Your task to perform on an android device: turn off wifi Image 0: 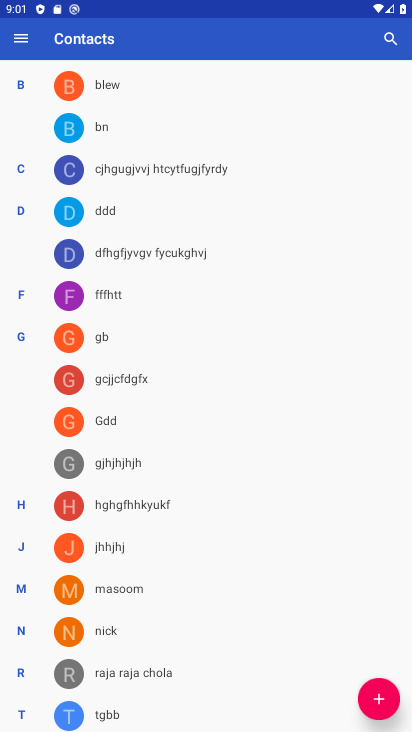
Step 0: press home button
Your task to perform on an android device: turn off wifi Image 1: 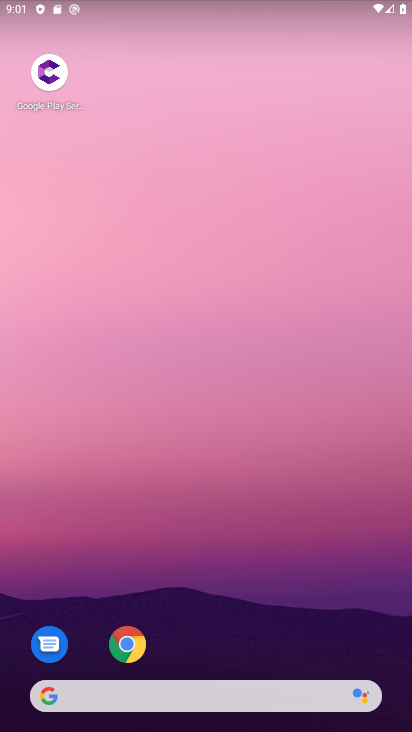
Step 1: drag from (335, 642) to (360, 203)
Your task to perform on an android device: turn off wifi Image 2: 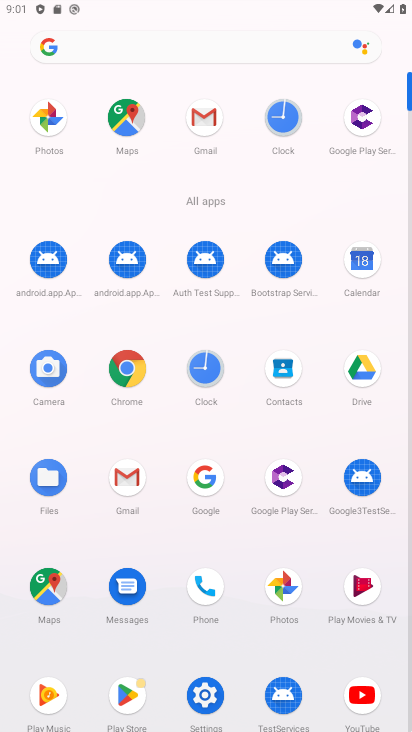
Step 2: click (203, 697)
Your task to perform on an android device: turn off wifi Image 3: 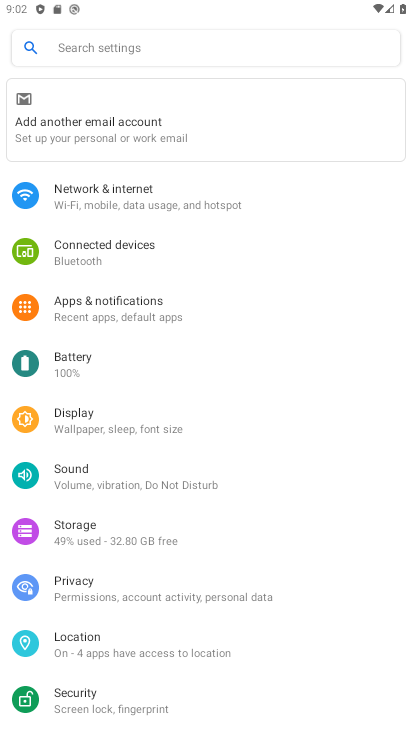
Step 3: drag from (328, 603) to (343, 507)
Your task to perform on an android device: turn off wifi Image 4: 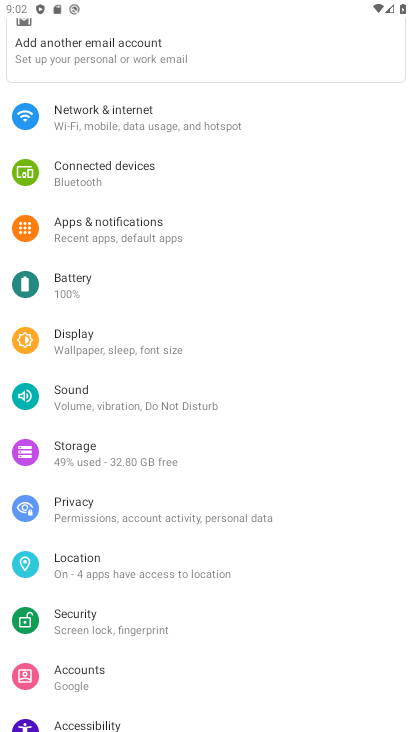
Step 4: drag from (346, 608) to (351, 532)
Your task to perform on an android device: turn off wifi Image 5: 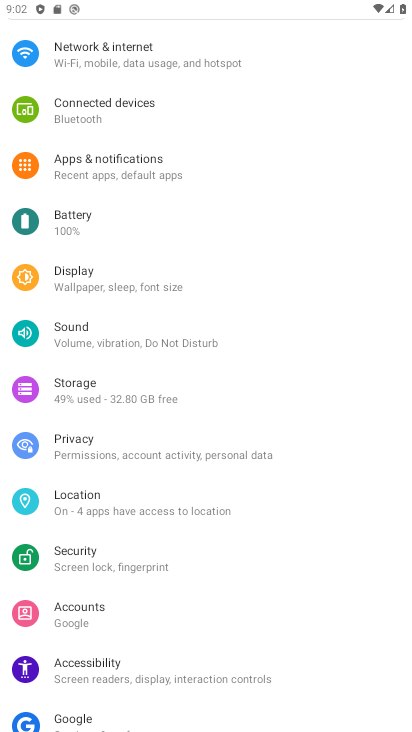
Step 5: drag from (331, 616) to (325, 506)
Your task to perform on an android device: turn off wifi Image 6: 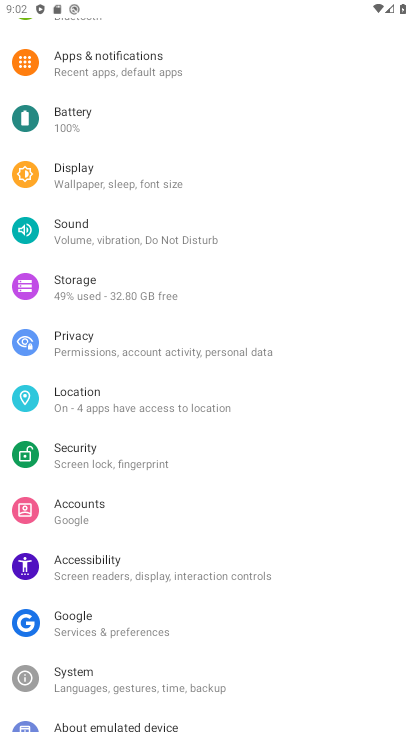
Step 6: drag from (339, 615) to (344, 510)
Your task to perform on an android device: turn off wifi Image 7: 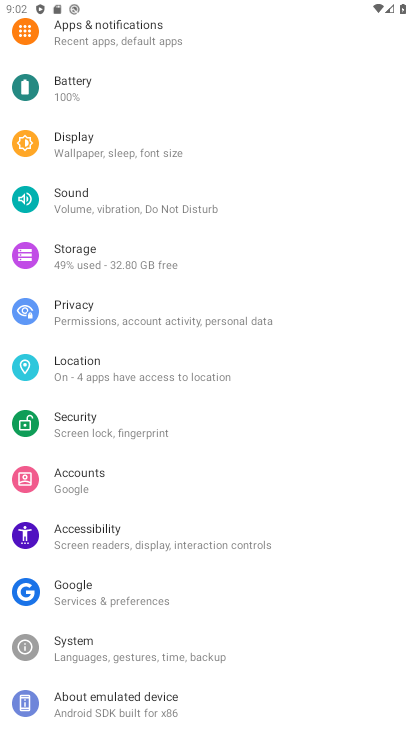
Step 7: drag from (357, 347) to (366, 536)
Your task to perform on an android device: turn off wifi Image 8: 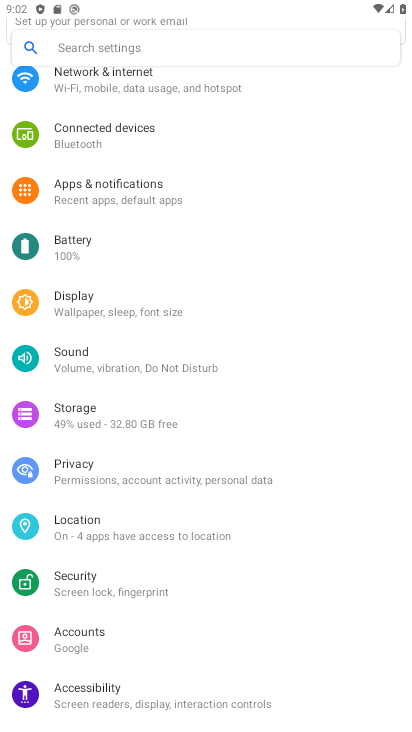
Step 8: drag from (337, 317) to (345, 460)
Your task to perform on an android device: turn off wifi Image 9: 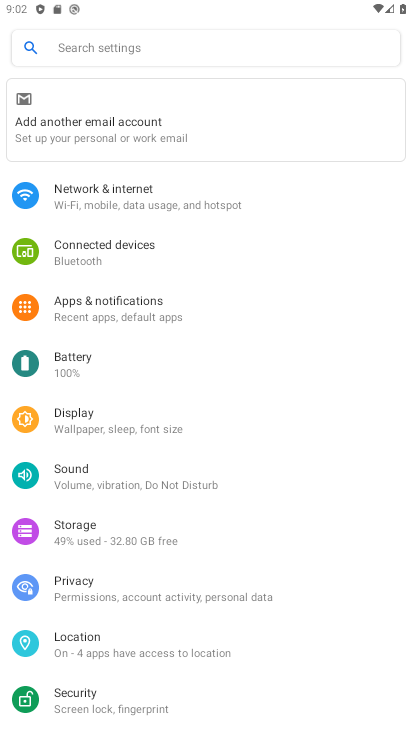
Step 9: drag from (344, 299) to (332, 441)
Your task to perform on an android device: turn off wifi Image 10: 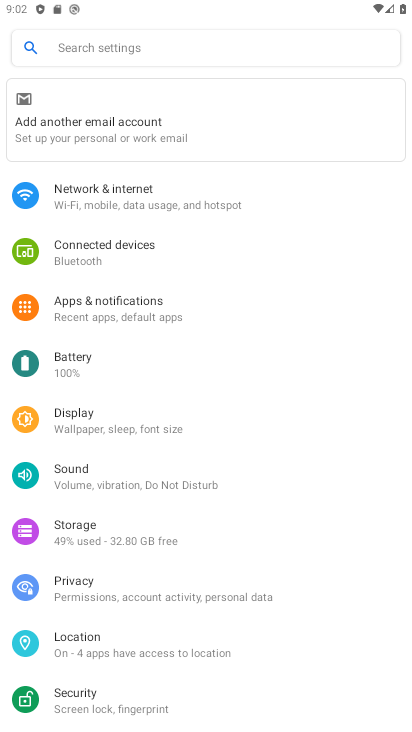
Step 10: click (208, 197)
Your task to perform on an android device: turn off wifi Image 11: 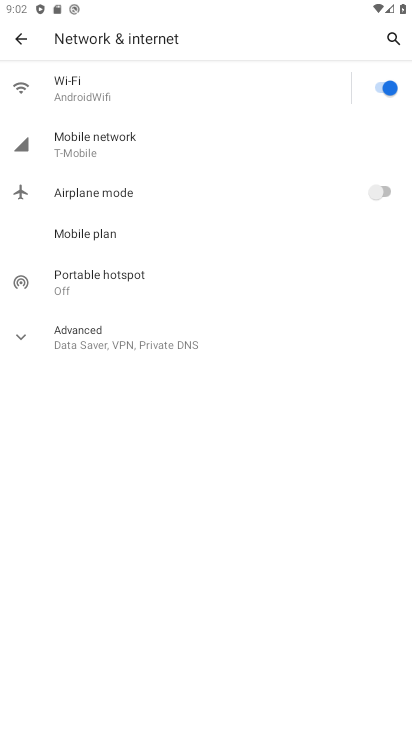
Step 11: click (382, 87)
Your task to perform on an android device: turn off wifi Image 12: 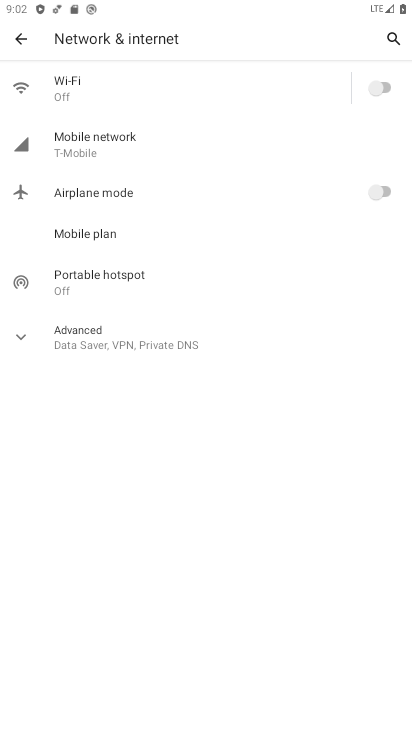
Step 12: task complete